Your task to perform on an android device: uninstall "Roku - Official Remote Control" Image 0: 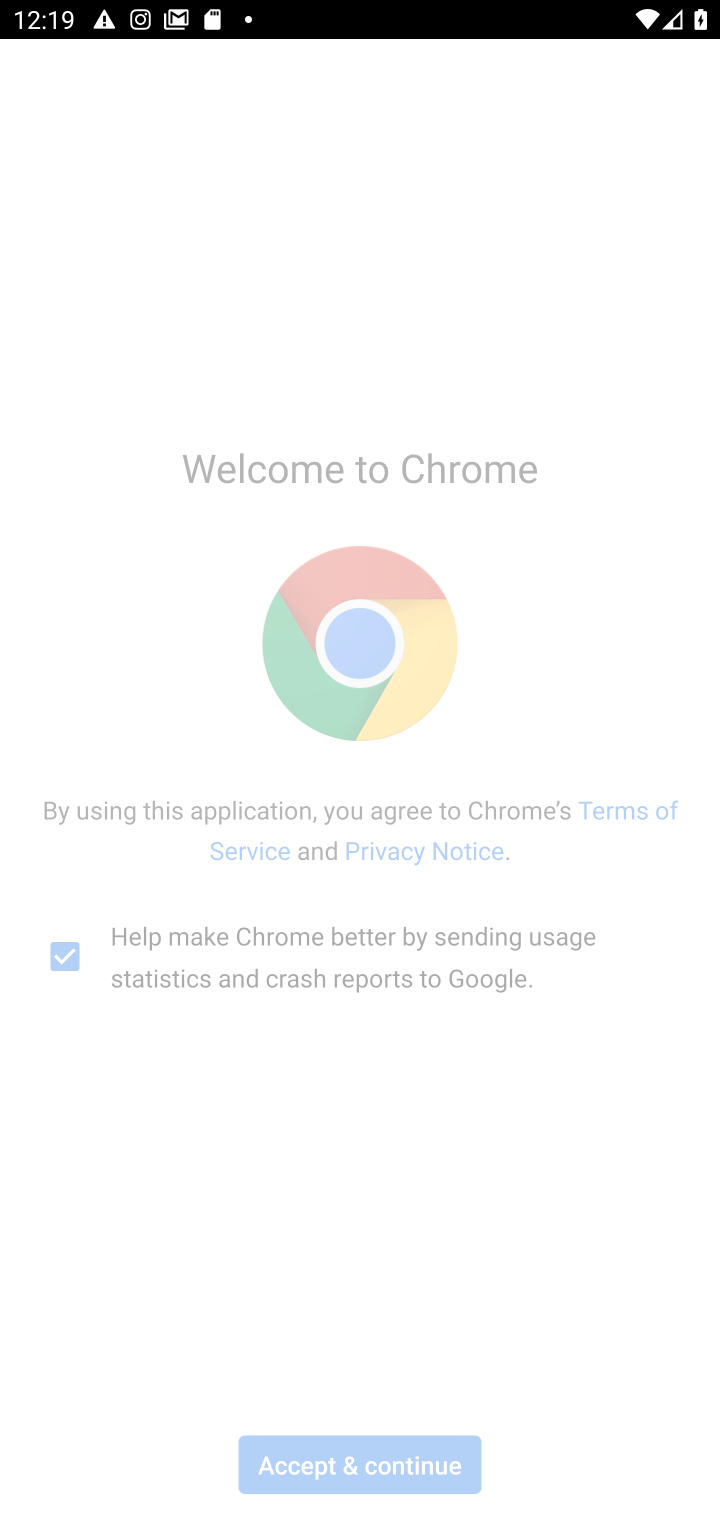
Step 0: press back button
Your task to perform on an android device: uninstall "Roku - Official Remote Control" Image 1: 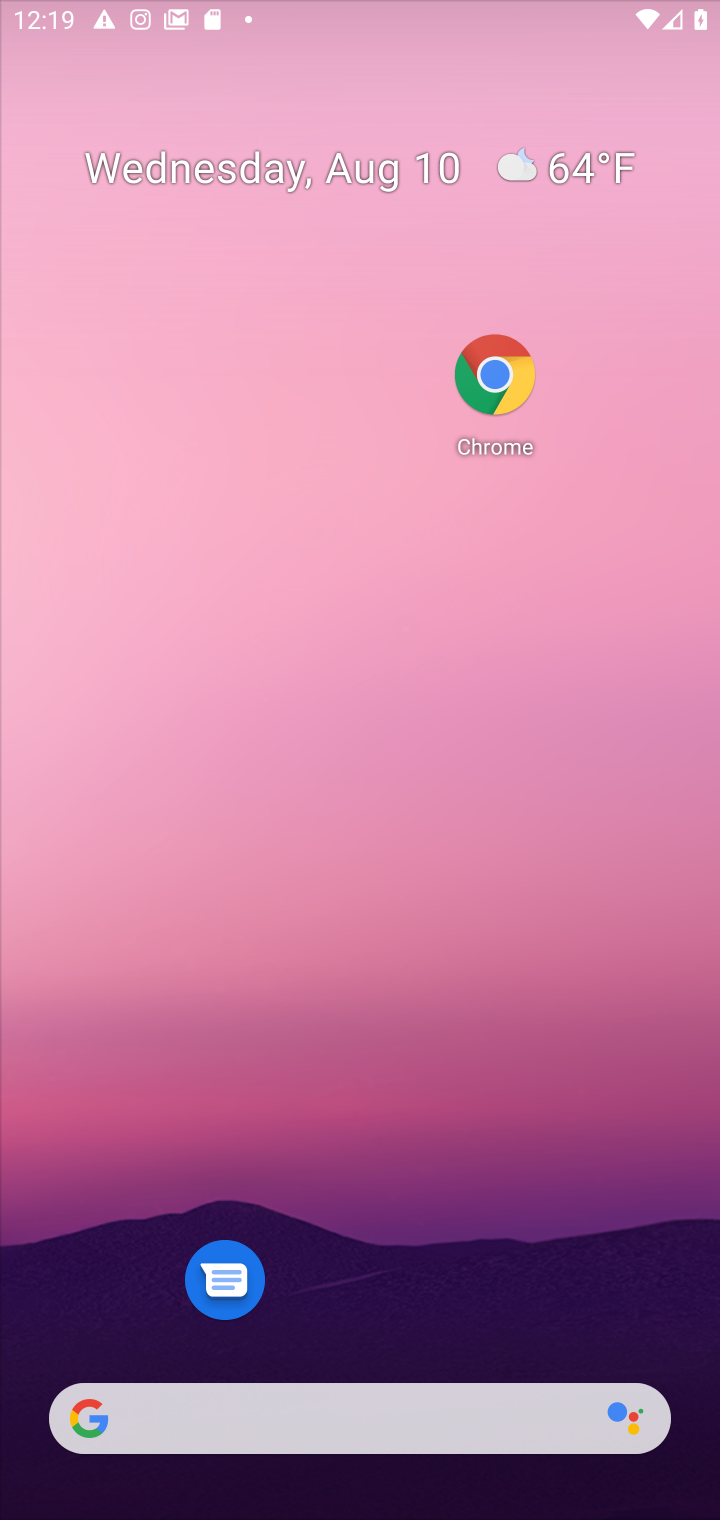
Step 1: press back button
Your task to perform on an android device: uninstall "Roku - Official Remote Control" Image 2: 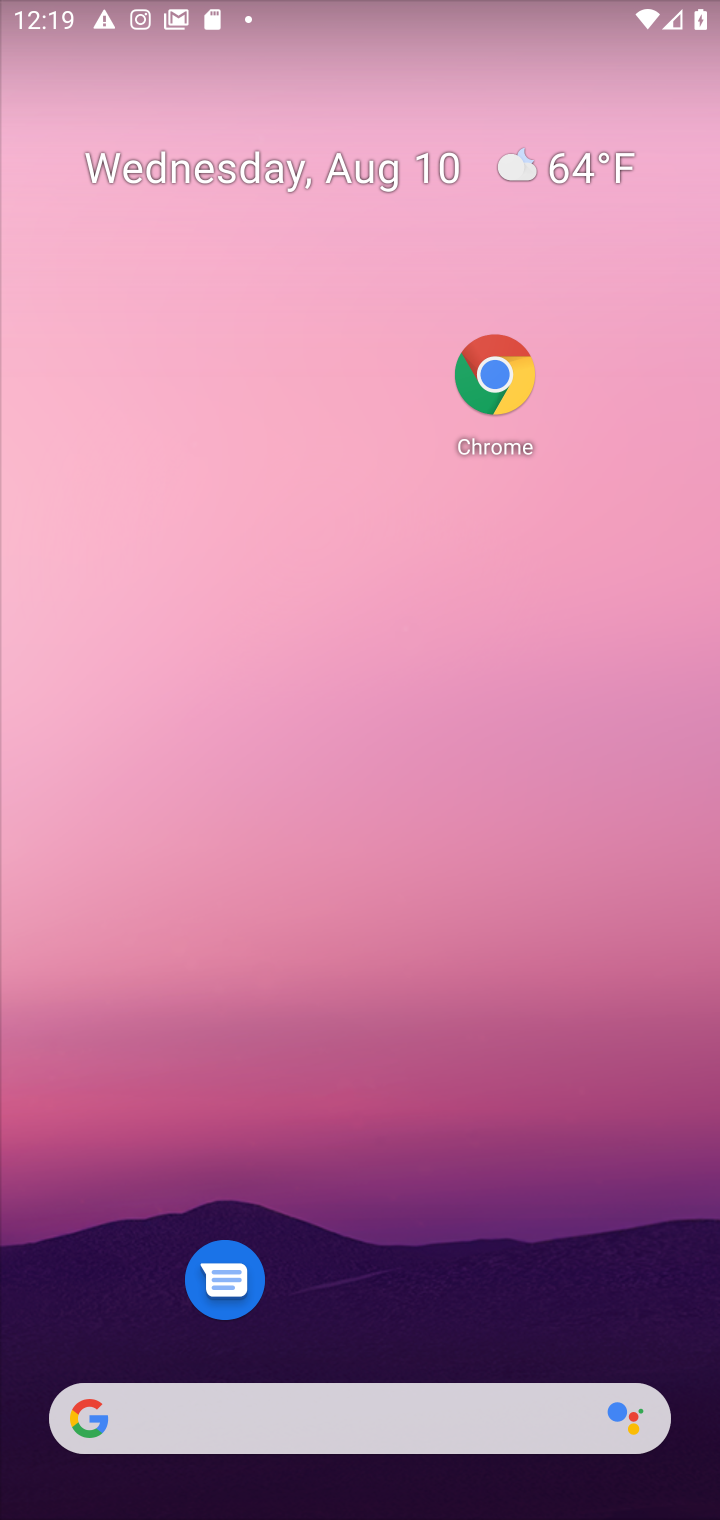
Step 2: drag from (426, 1334) to (418, 255)
Your task to perform on an android device: uninstall "Roku - Official Remote Control" Image 3: 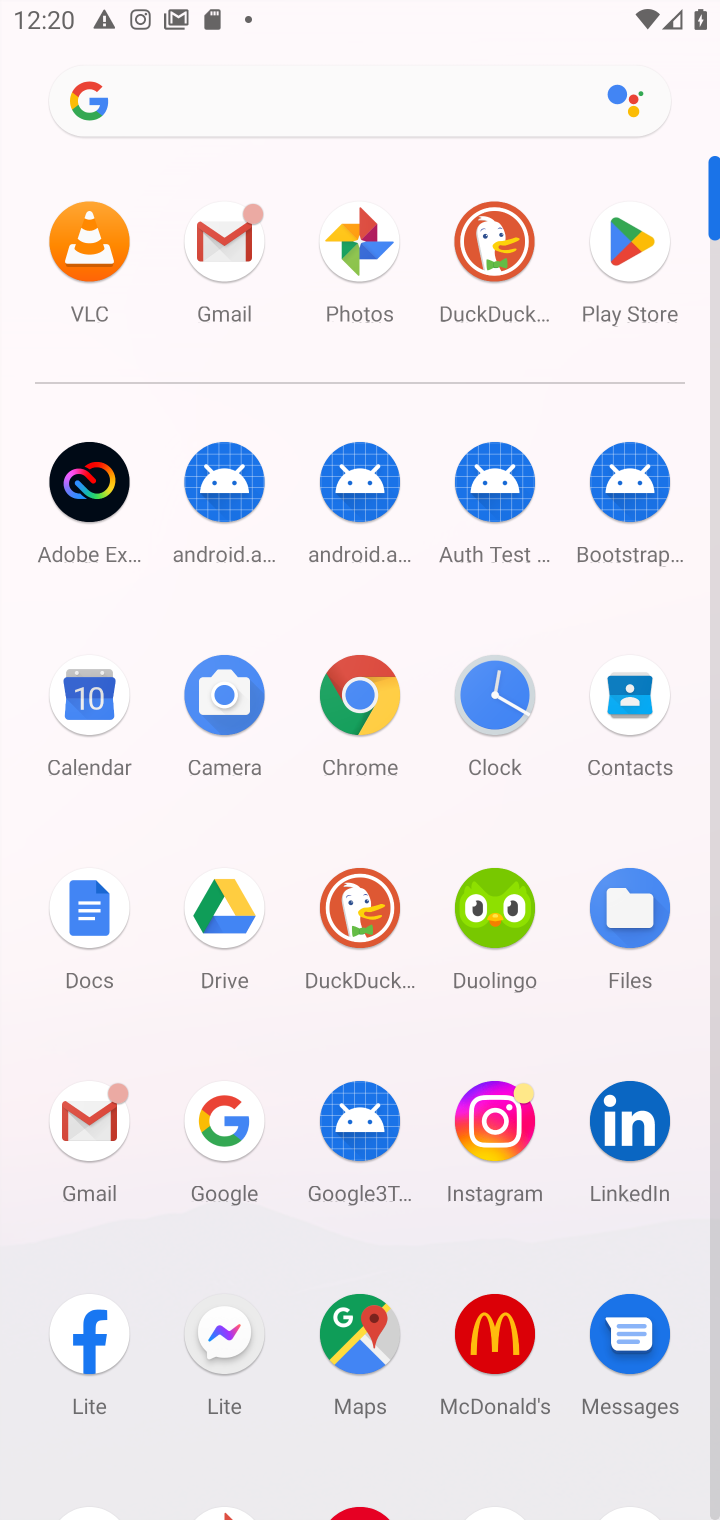
Step 3: click (640, 239)
Your task to perform on an android device: uninstall "Roku - Official Remote Control" Image 4: 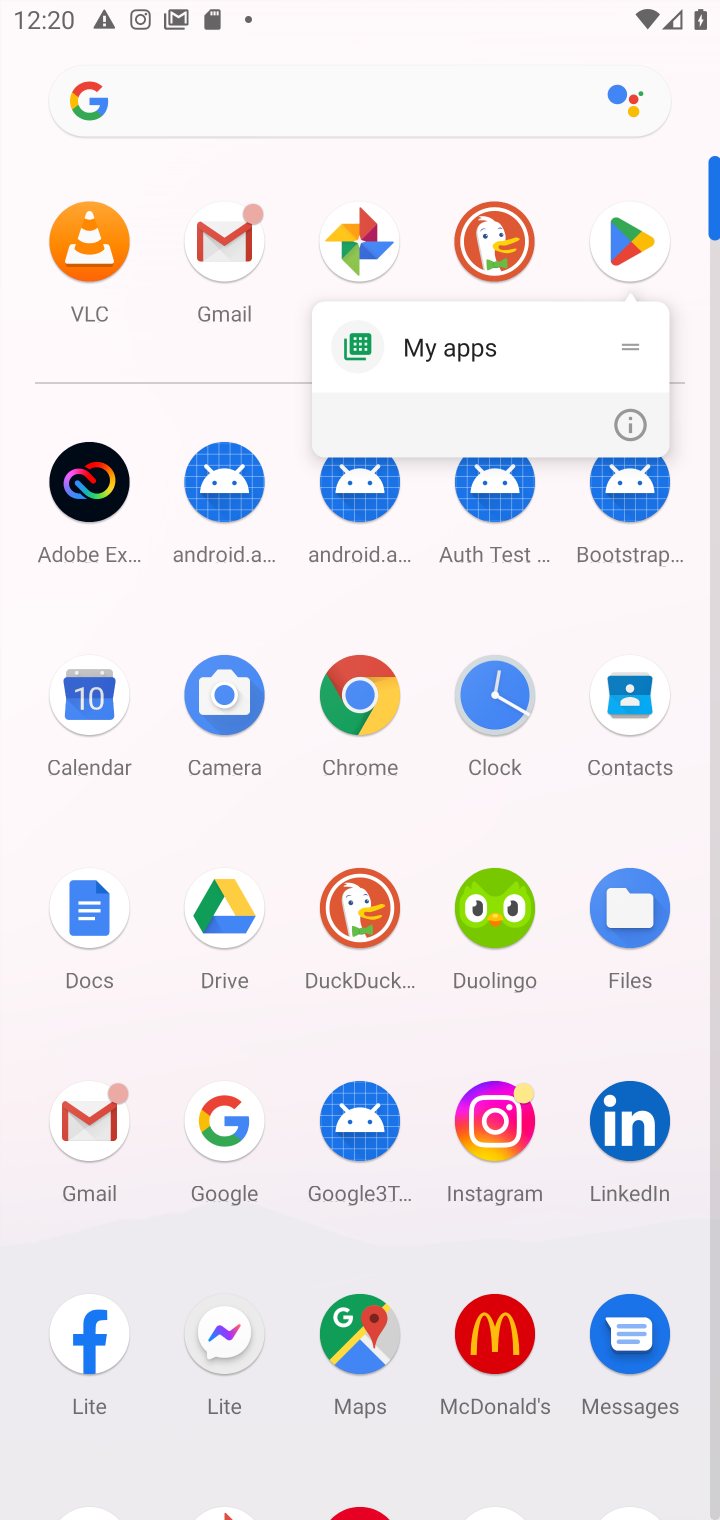
Step 4: click (636, 243)
Your task to perform on an android device: uninstall "Roku - Official Remote Control" Image 5: 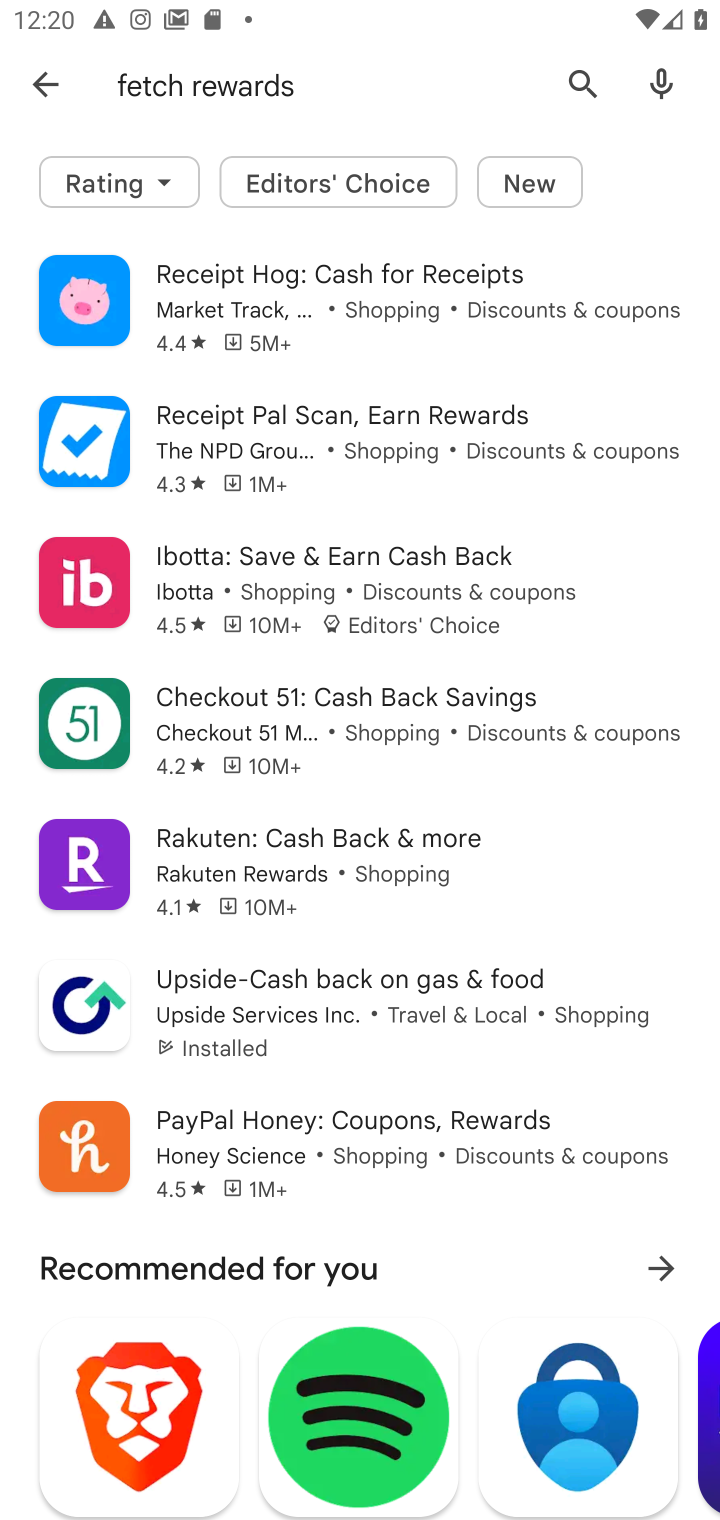
Step 5: click (41, 72)
Your task to perform on an android device: uninstall "Roku - Official Remote Control" Image 6: 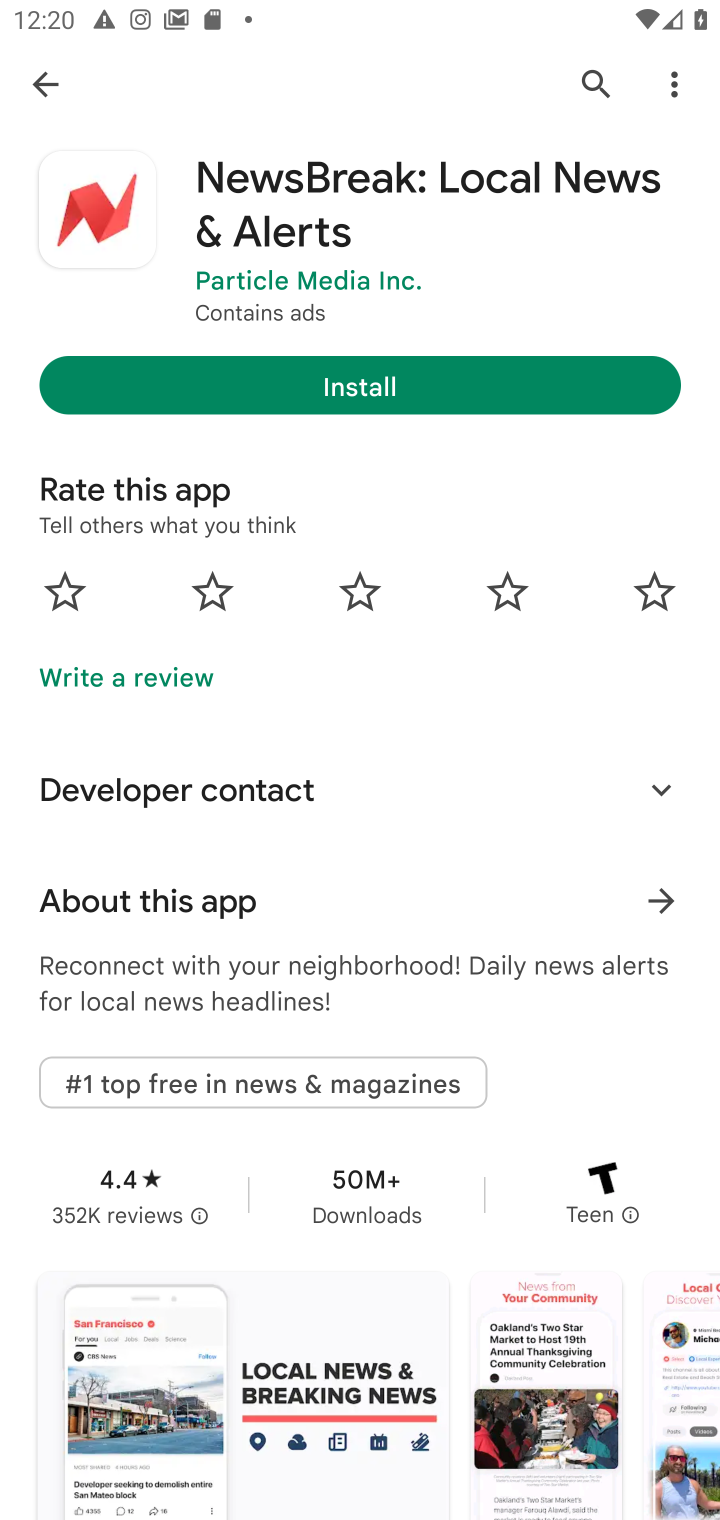
Step 6: click (594, 75)
Your task to perform on an android device: uninstall "Roku - Official Remote Control" Image 7: 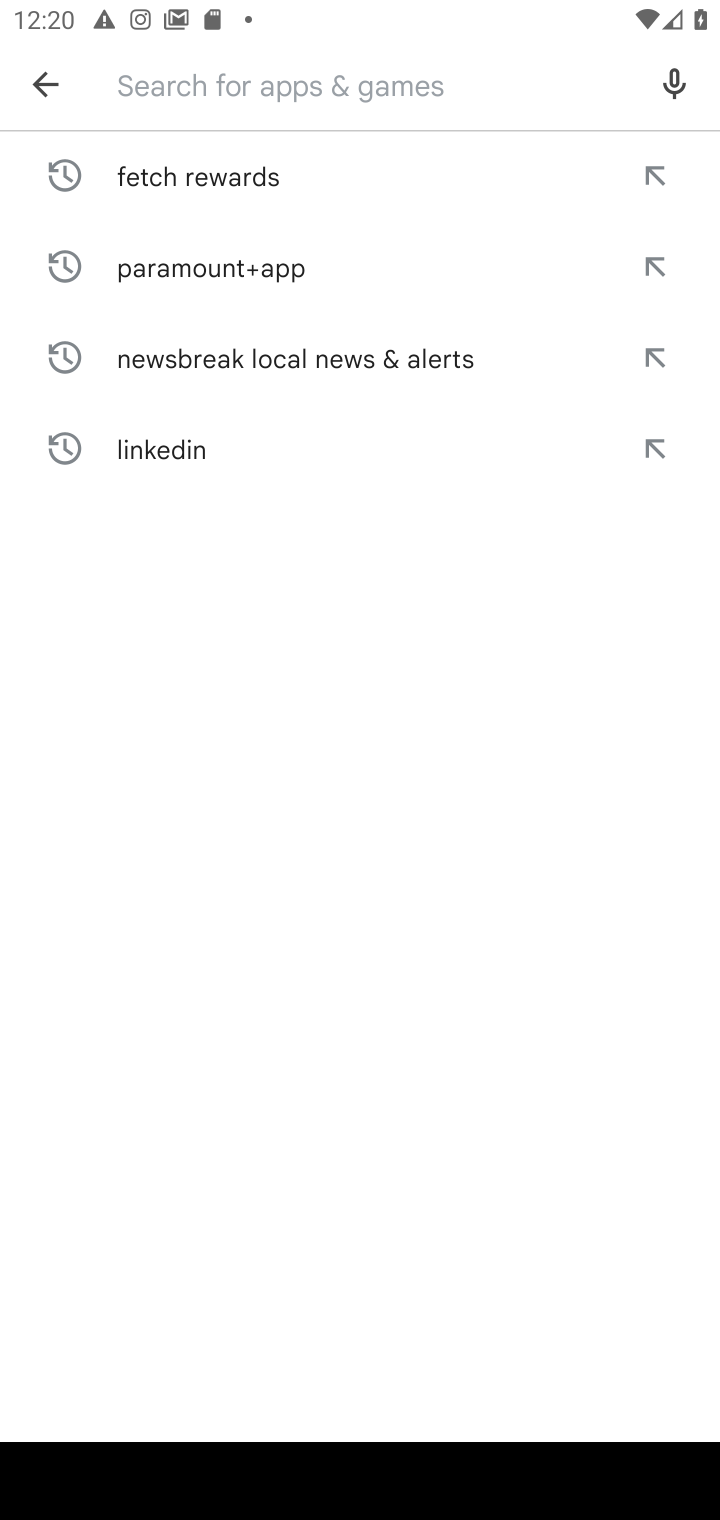
Step 7: type "Roku - Official Remote Contro"
Your task to perform on an android device: uninstall "Roku - Official Remote Control" Image 8: 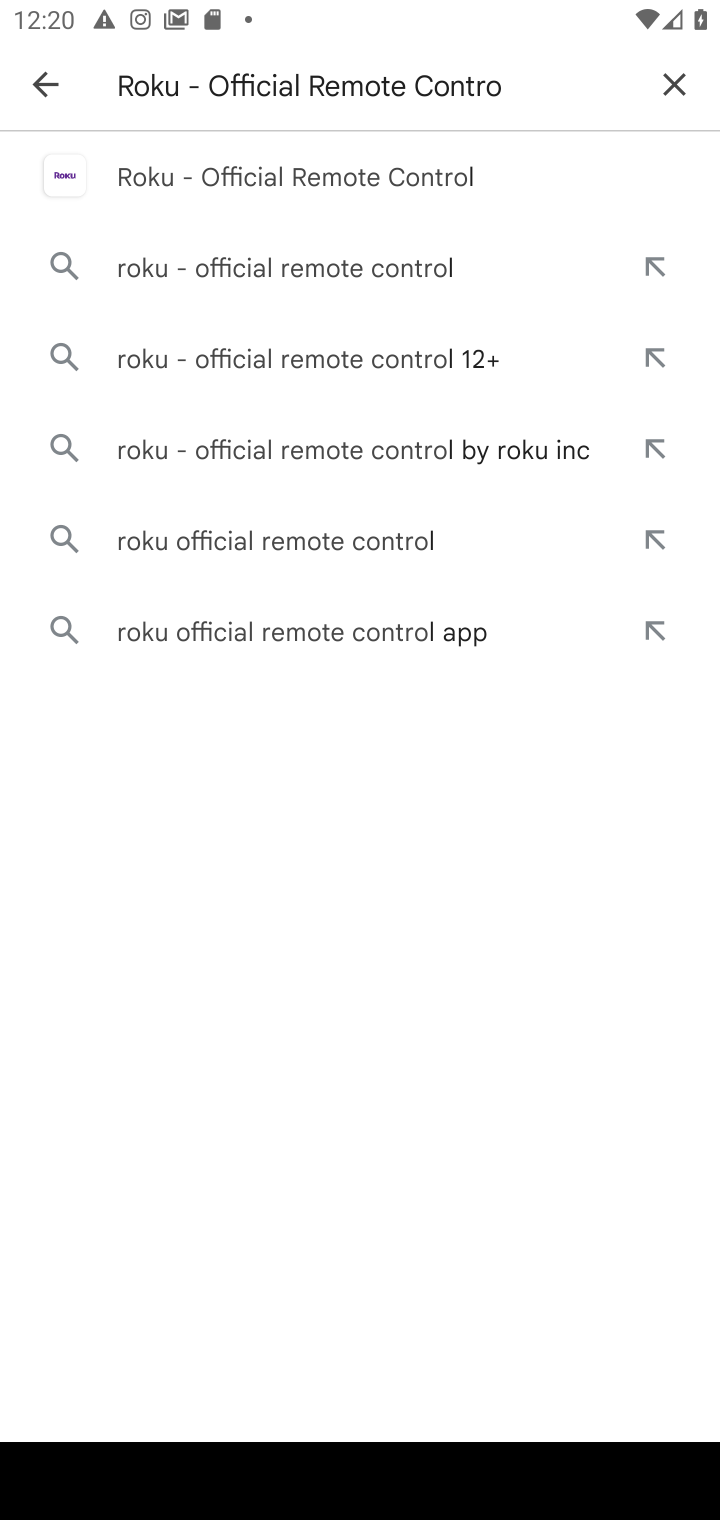
Step 8: click (181, 157)
Your task to perform on an android device: uninstall "Roku - Official Remote Control" Image 9: 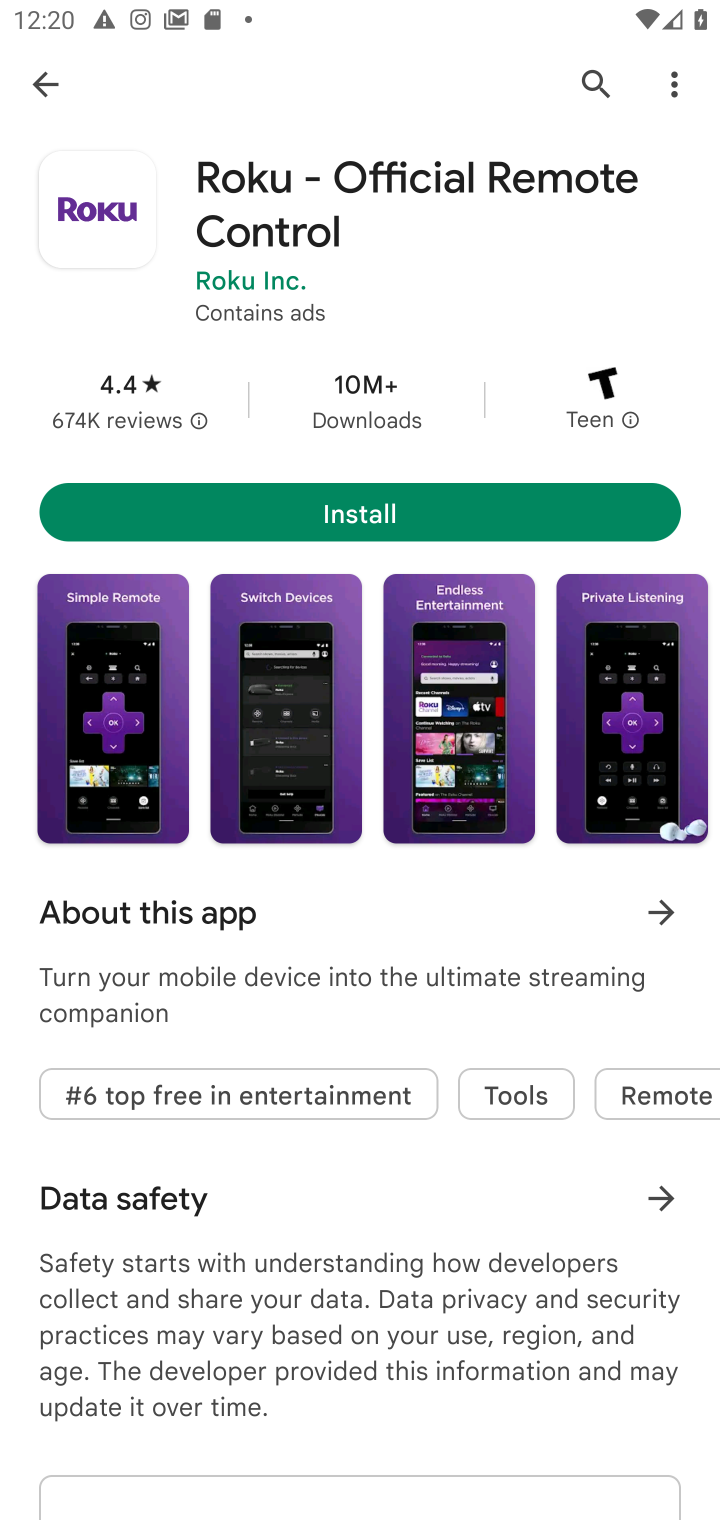
Step 9: task complete